Your task to perform on an android device: uninstall "Calculator" Image 0: 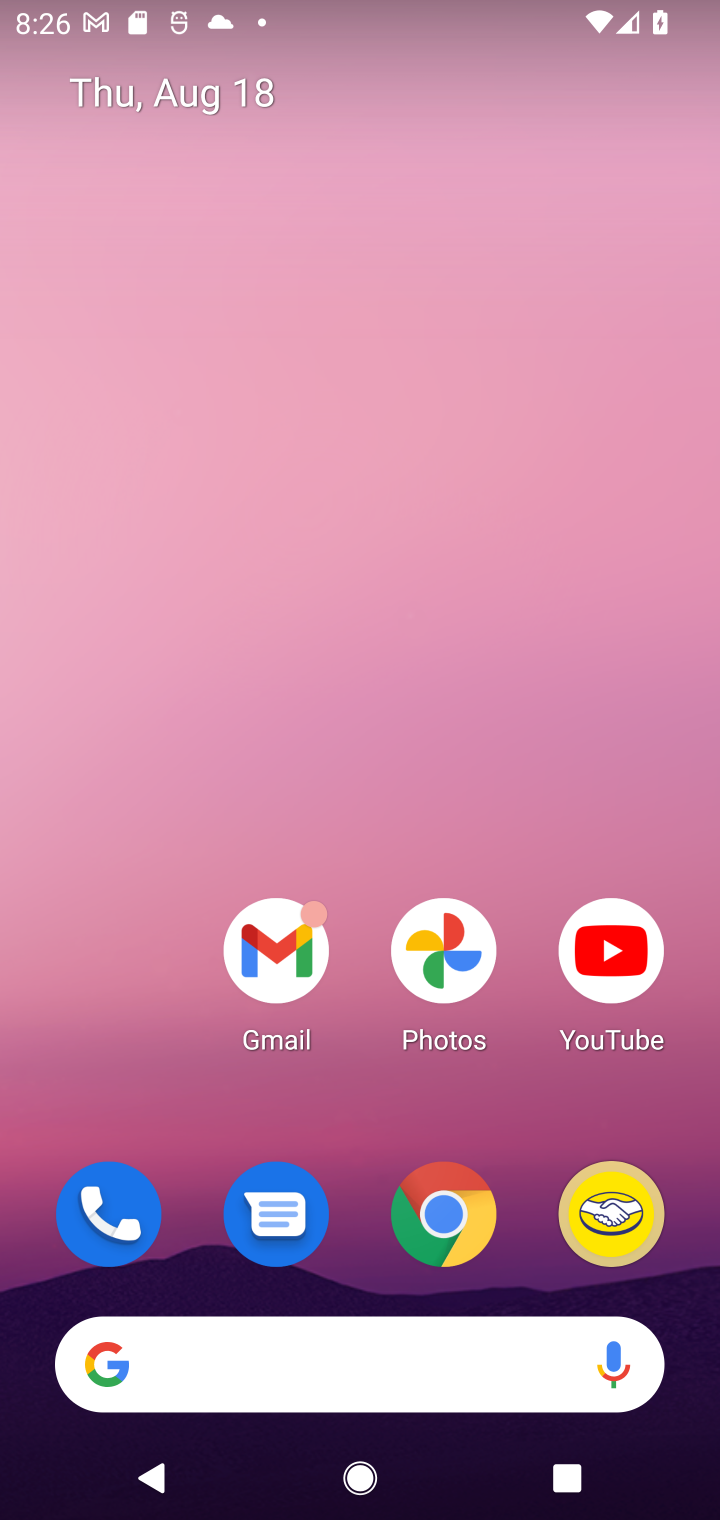
Step 0: drag from (404, 688) to (500, 41)
Your task to perform on an android device: uninstall "Calculator" Image 1: 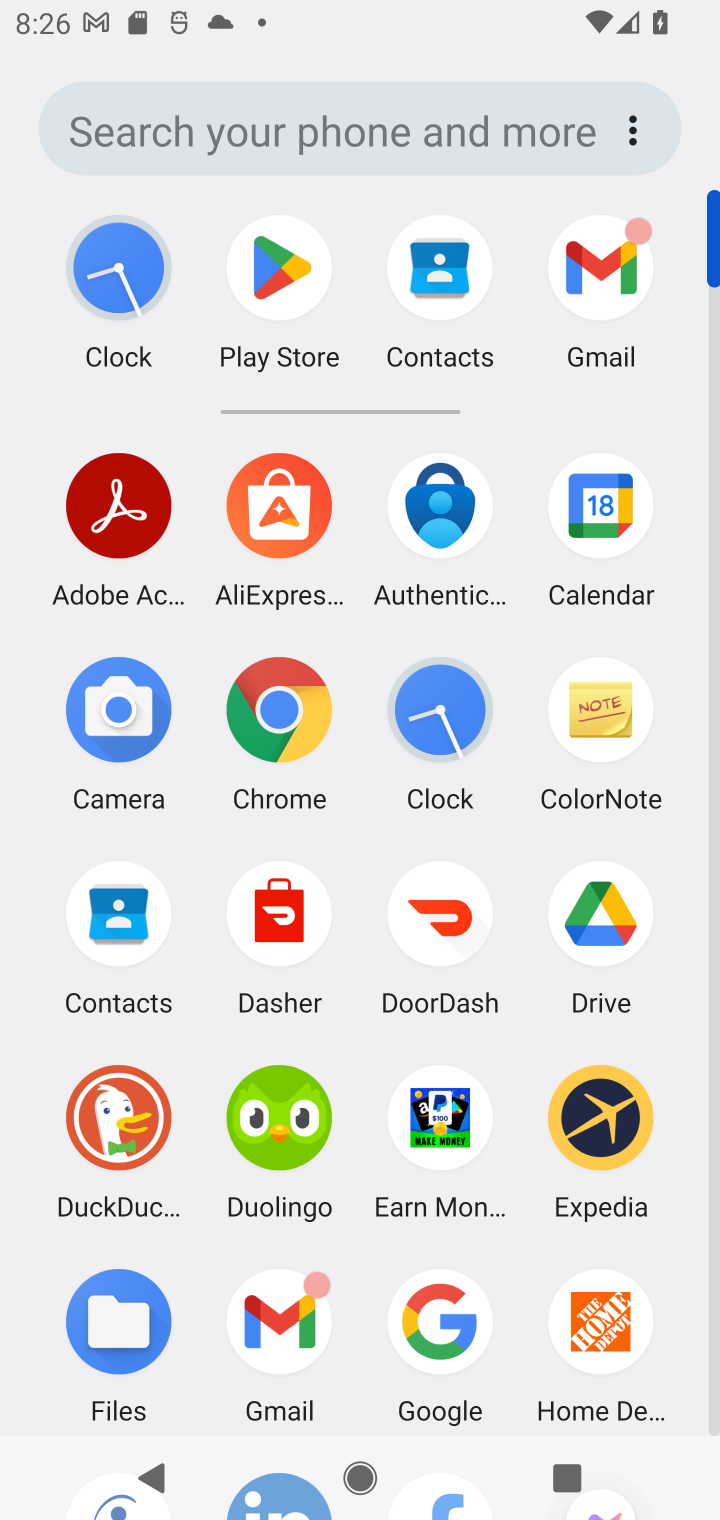
Step 1: click (287, 263)
Your task to perform on an android device: uninstall "Calculator" Image 2: 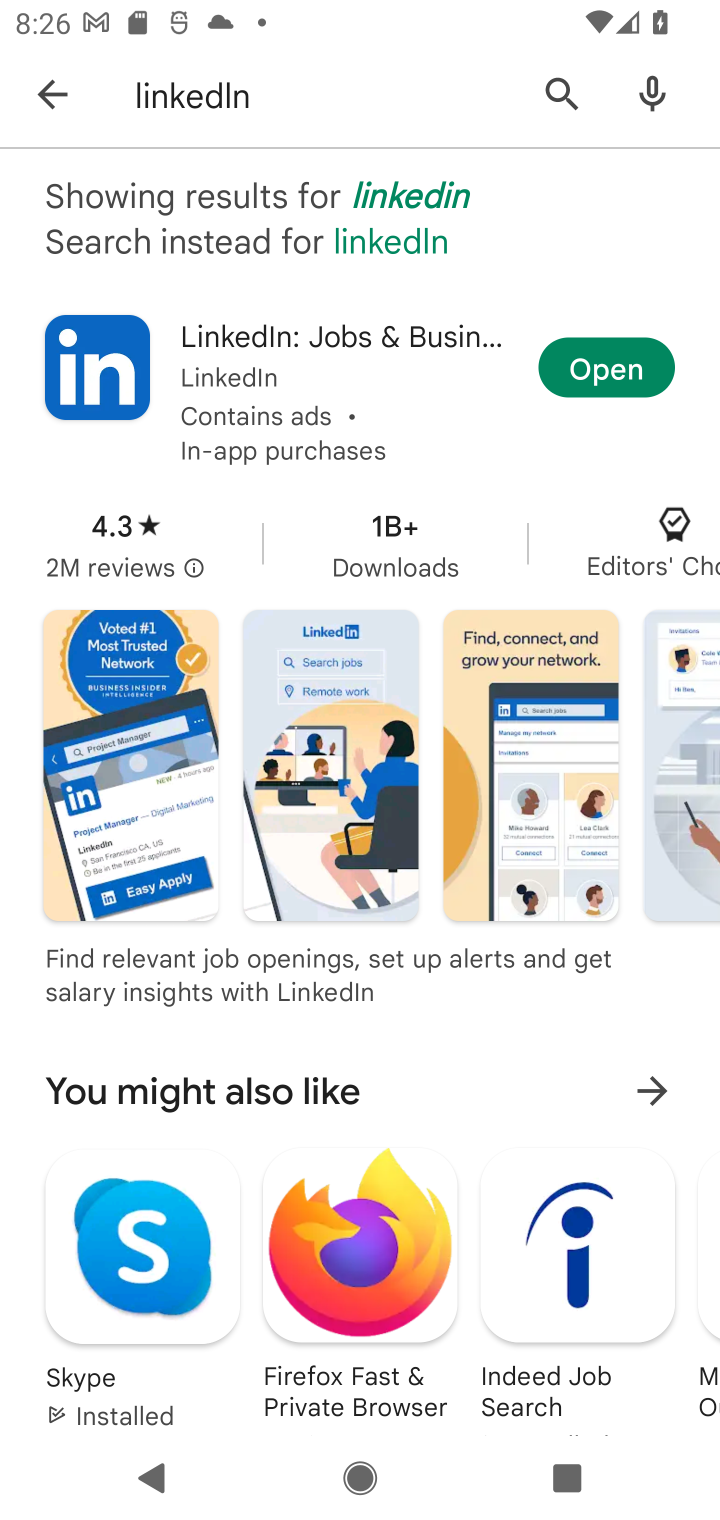
Step 2: click (584, 80)
Your task to perform on an android device: uninstall "Calculator" Image 3: 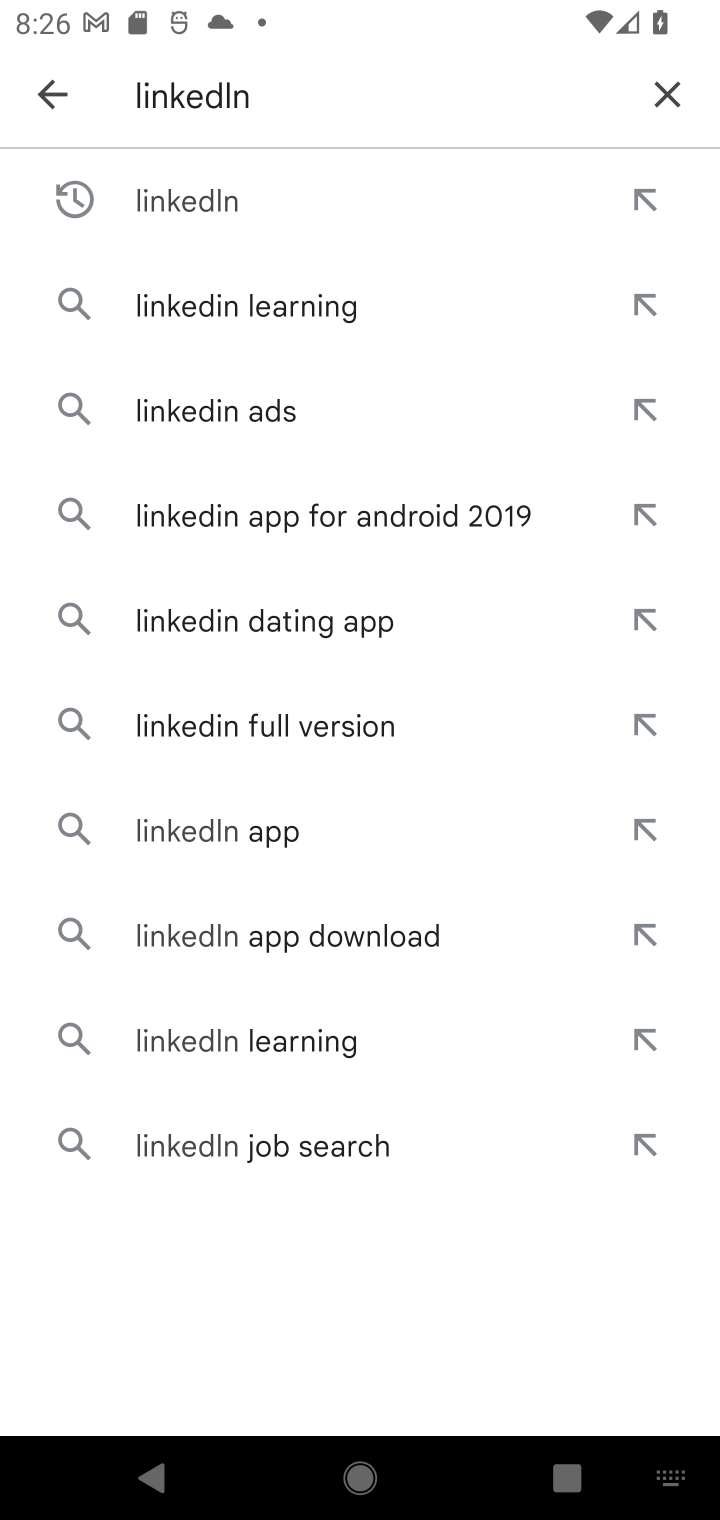
Step 3: click (661, 89)
Your task to perform on an android device: uninstall "Calculator" Image 4: 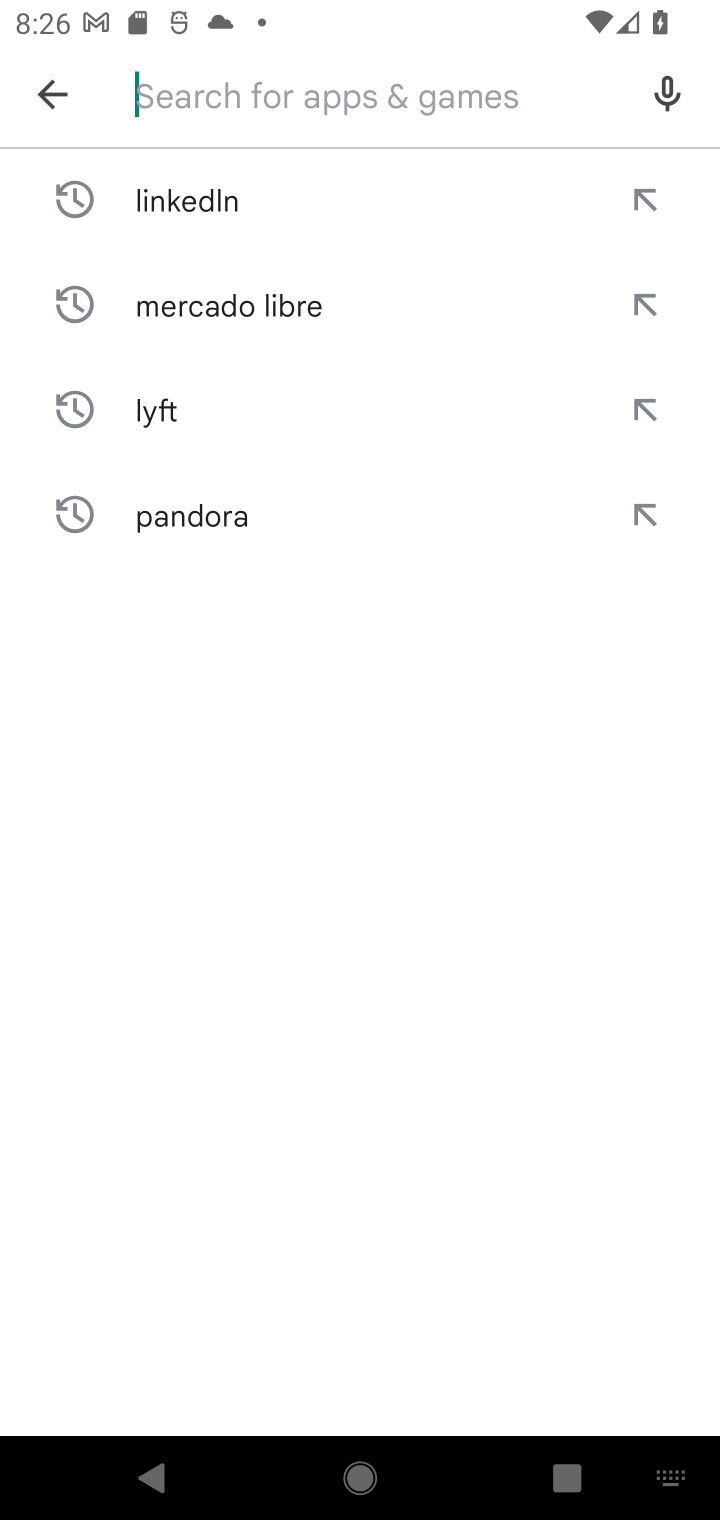
Step 4: click (355, 100)
Your task to perform on an android device: uninstall "Calculator" Image 5: 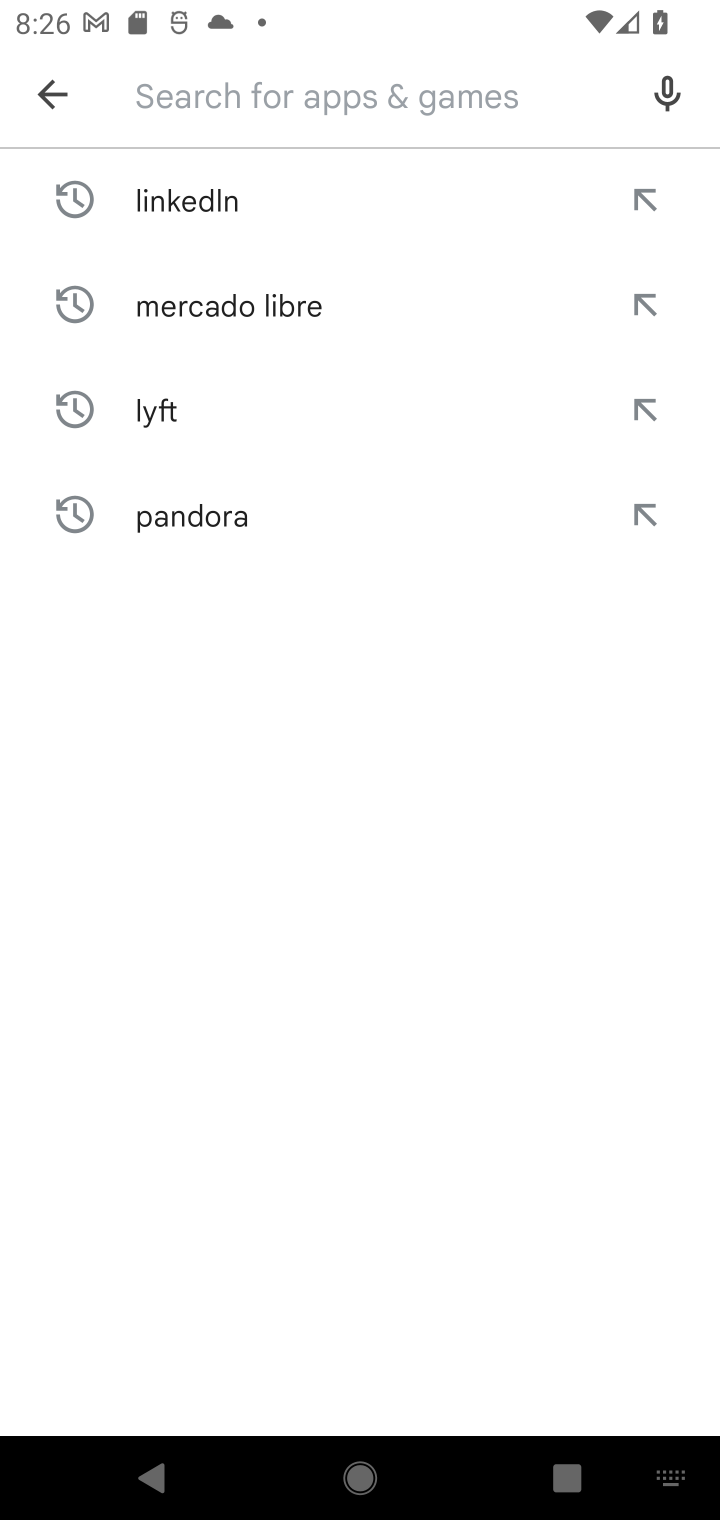
Step 5: type "calculator"
Your task to perform on an android device: uninstall "Calculator" Image 6: 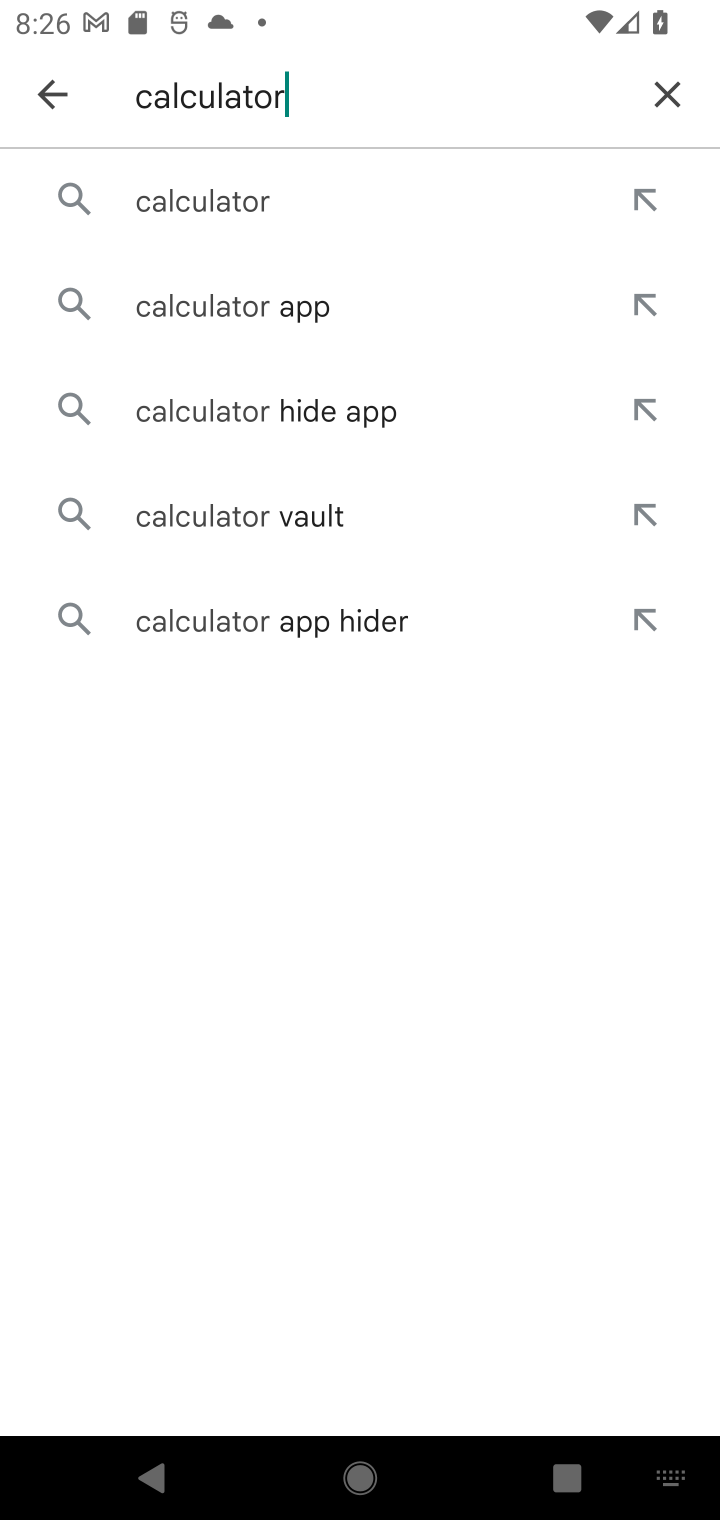
Step 6: click (260, 206)
Your task to perform on an android device: uninstall "Calculator" Image 7: 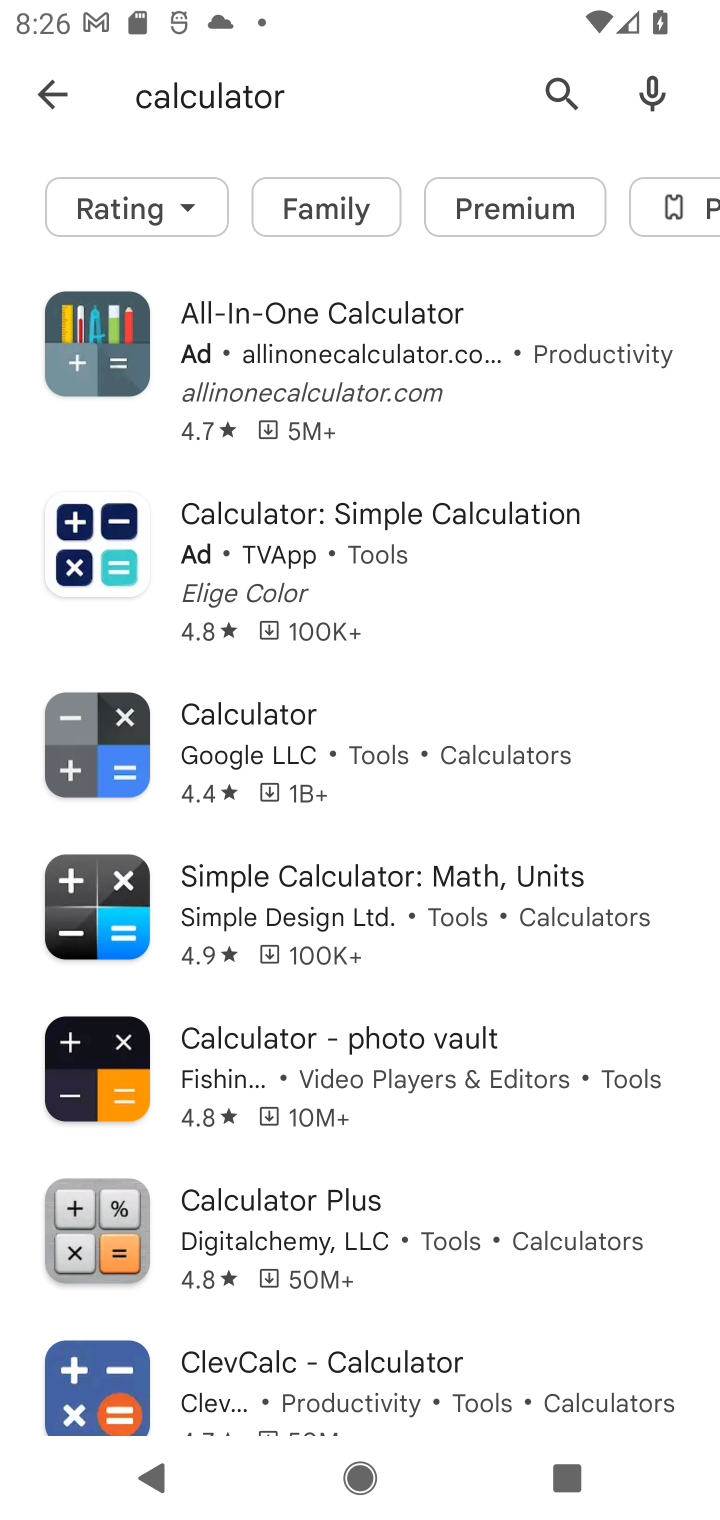
Step 7: click (351, 729)
Your task to perform on an android device: uninstall "Calculator" Image 8: 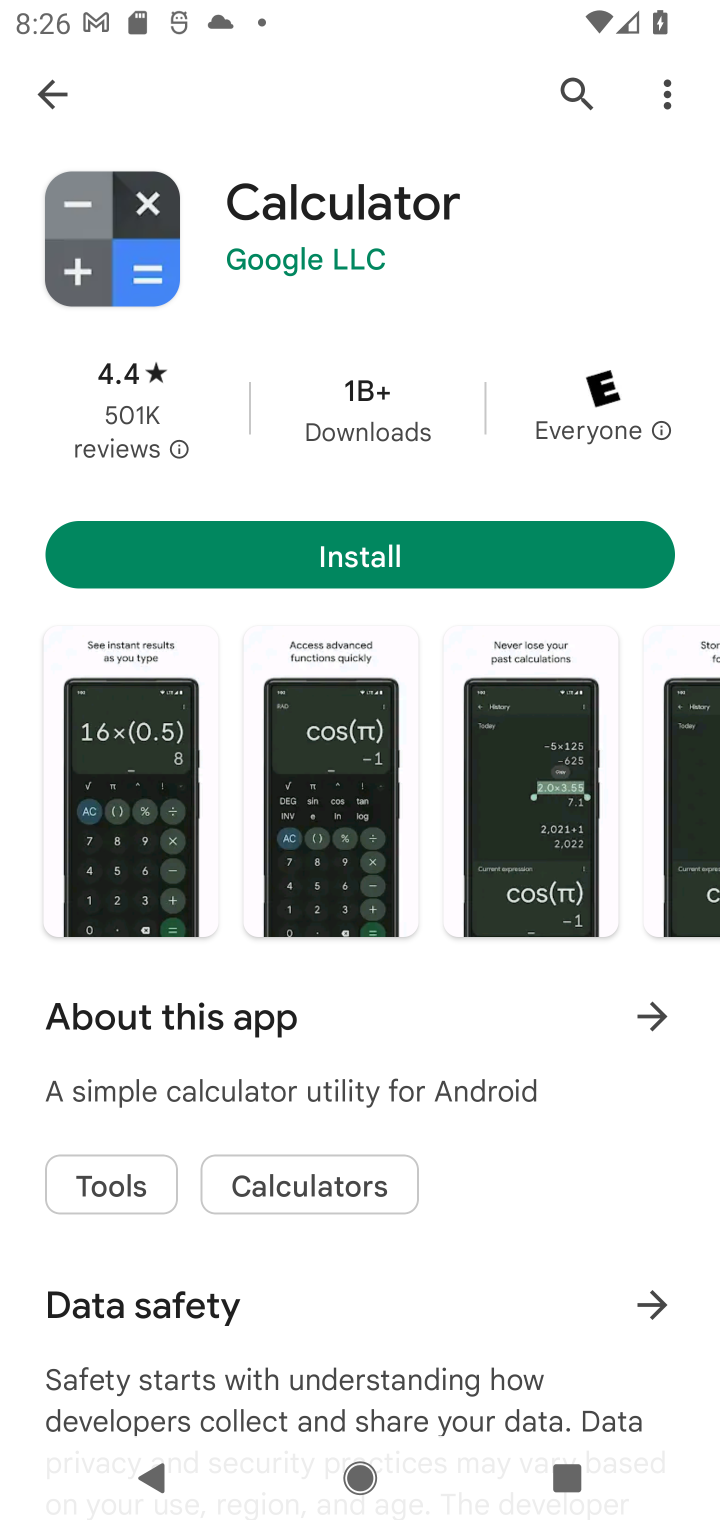
Step 8: task complete